Your task to perform on an android device: Go to notification settings Image 0: 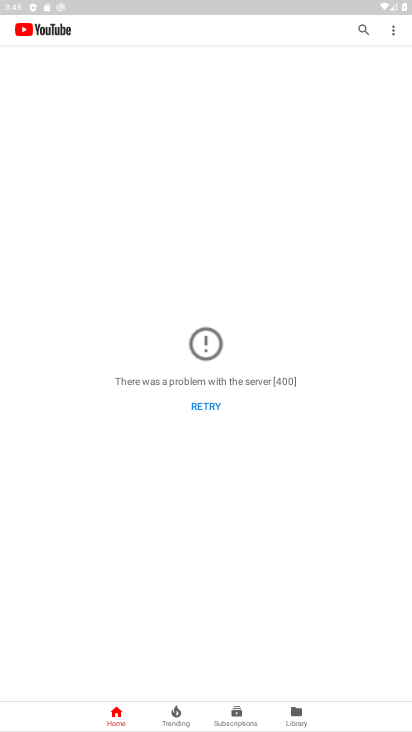
Step 0: press home button
Your task to perform on an android device: Go to notification settings Image 1: 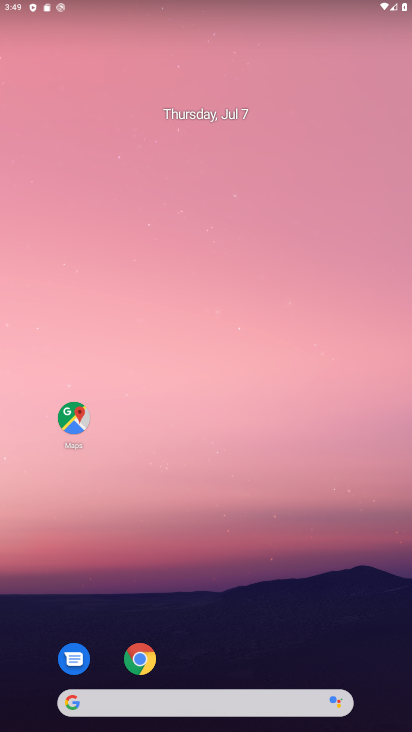
Step 1: drag from (220, 493) to (138, 0)
Your task to perform on an android device: Go to notification settings Image 2: 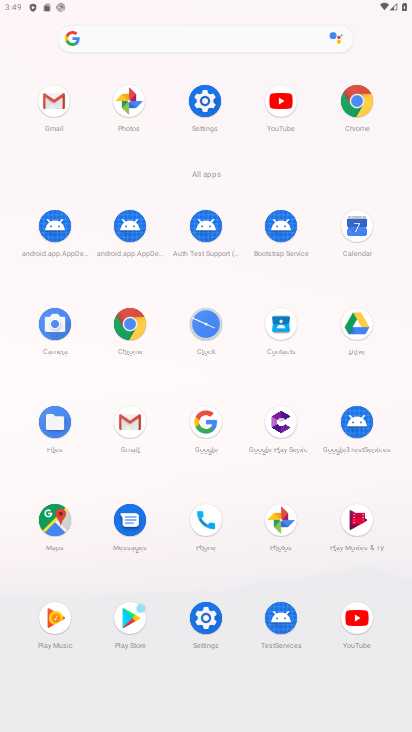
Step 2: click (205, 622)
Your task to perform on an android device: Go to notification settings Image 3: 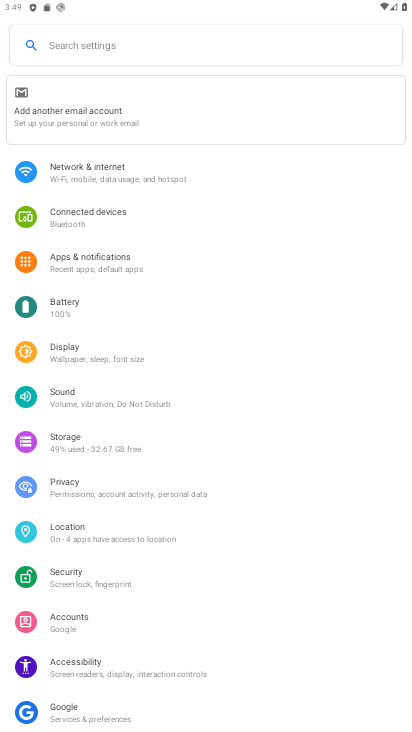
Step 3: click (127, 268)
Your task to perform on an android device: Go to notification settings Image 4: 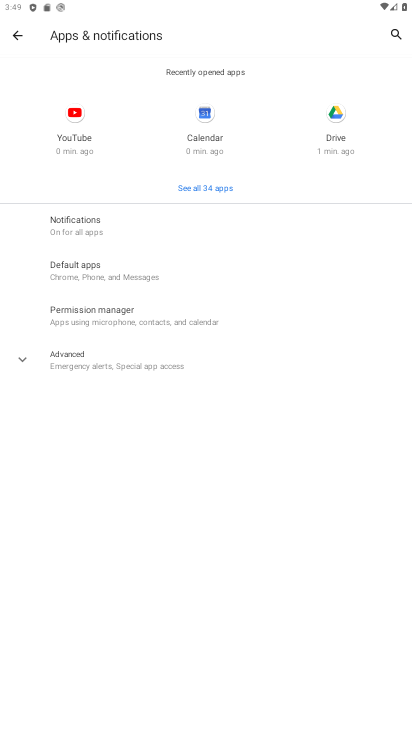
Step 4: click (70, 220)
Your task to perform on an android device: Go to notification settings Image 5: 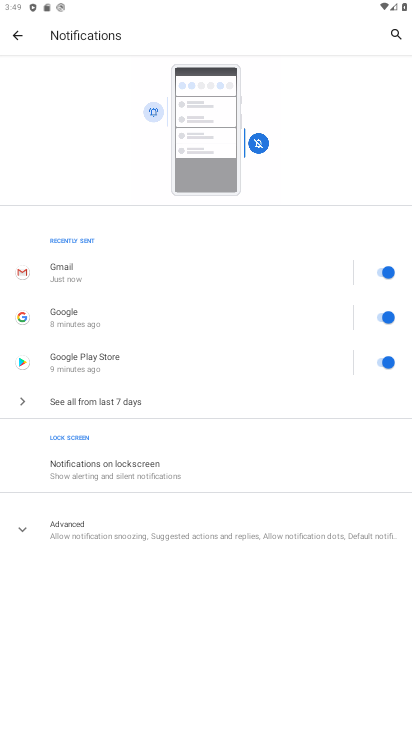
Step 5: task complete